Your task to perform on an android device: find snoozed emails in the gmail app Image 0: 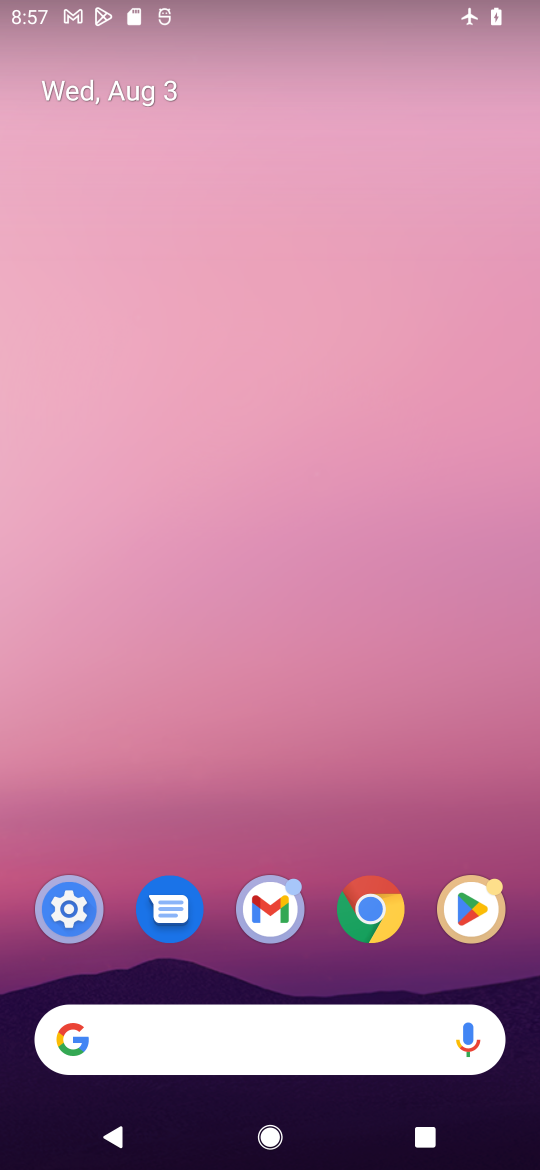
Step 0: drag from (408, 801) to (410, 251)
Your task to perform on an android device: find snoozed emails in the gmail app Image 1: 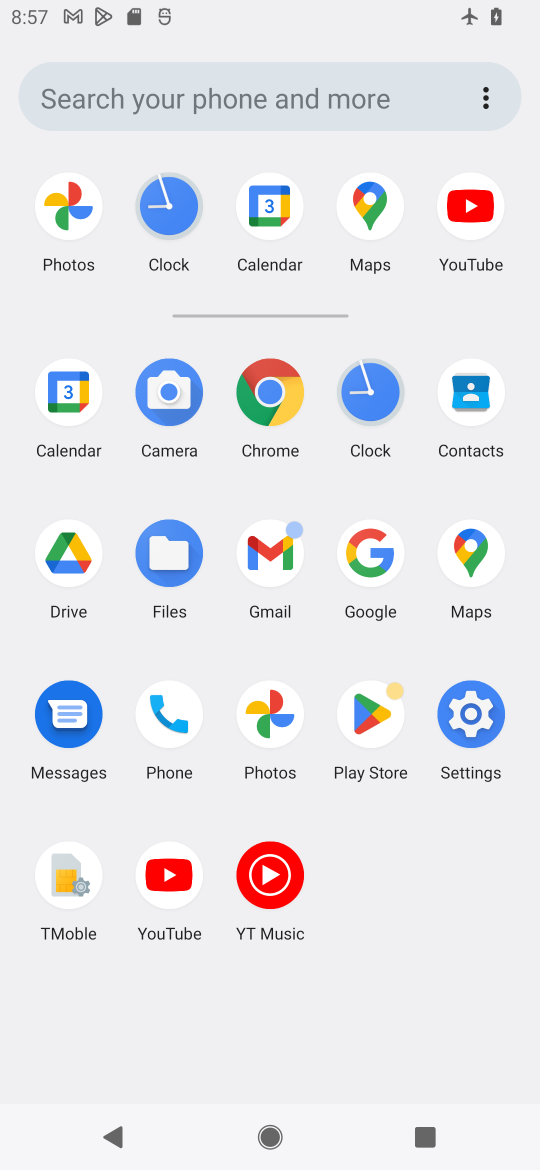
Step 1: click (269, 560)
Your task to perform on an android device: find snoozed emails in the gmail app Image 2: 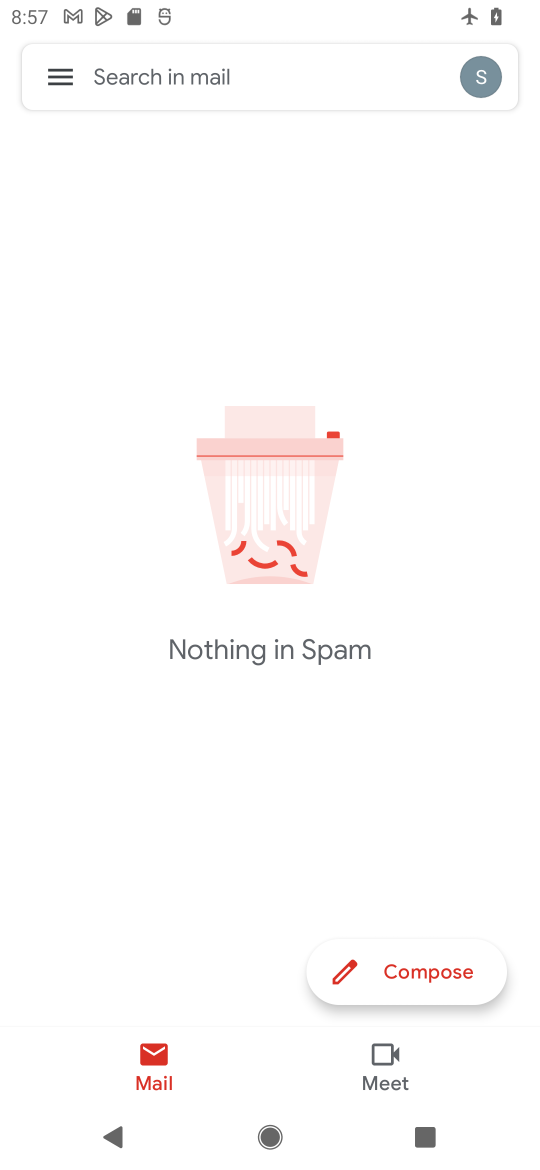
Step 2: click (60, 73)
Your task to perform on an android device: find snoozed emails in the gmail app Image 3: 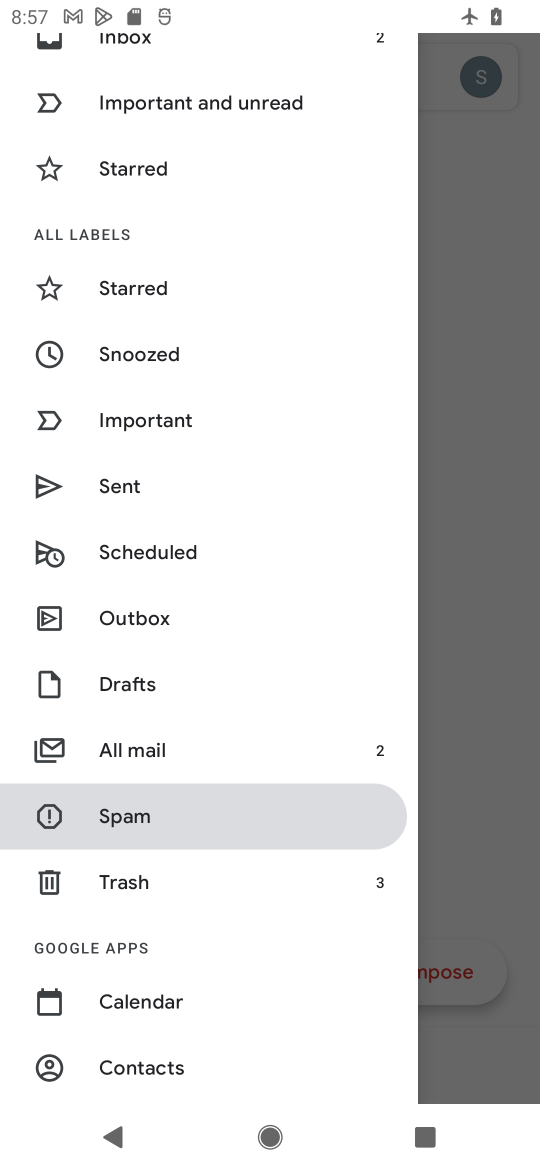
Step 3: drag from (292, 384) to (287, 563)
Your task to perform on an android device: find snoozed emails in the gmail app Image 4: 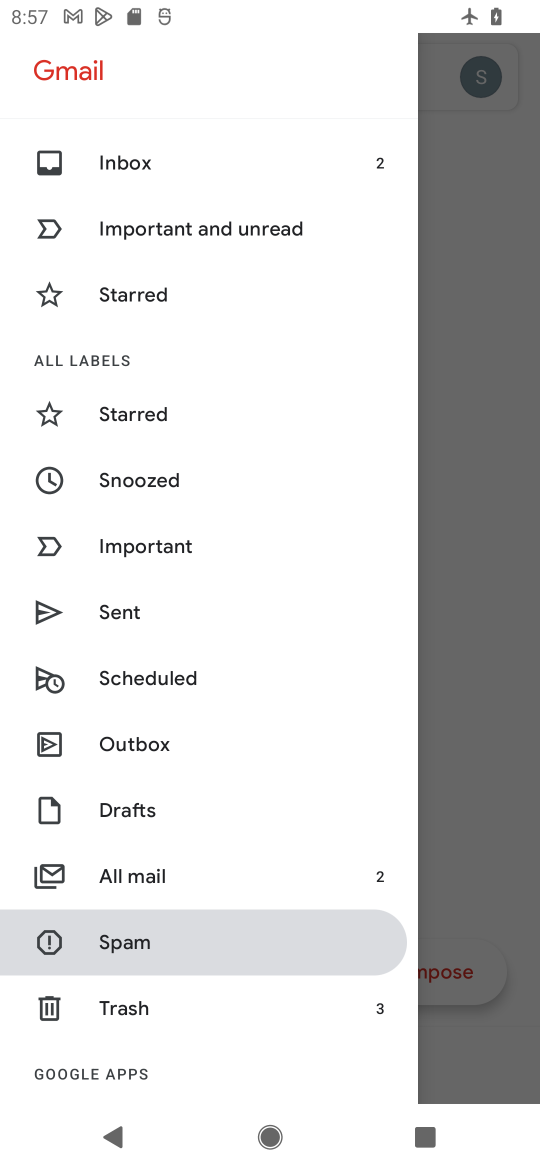
Step 4: drag from (294, 389) to (294, 620)
Your task to perform on an android device: find snoozed emails in the gmail app Image 5: 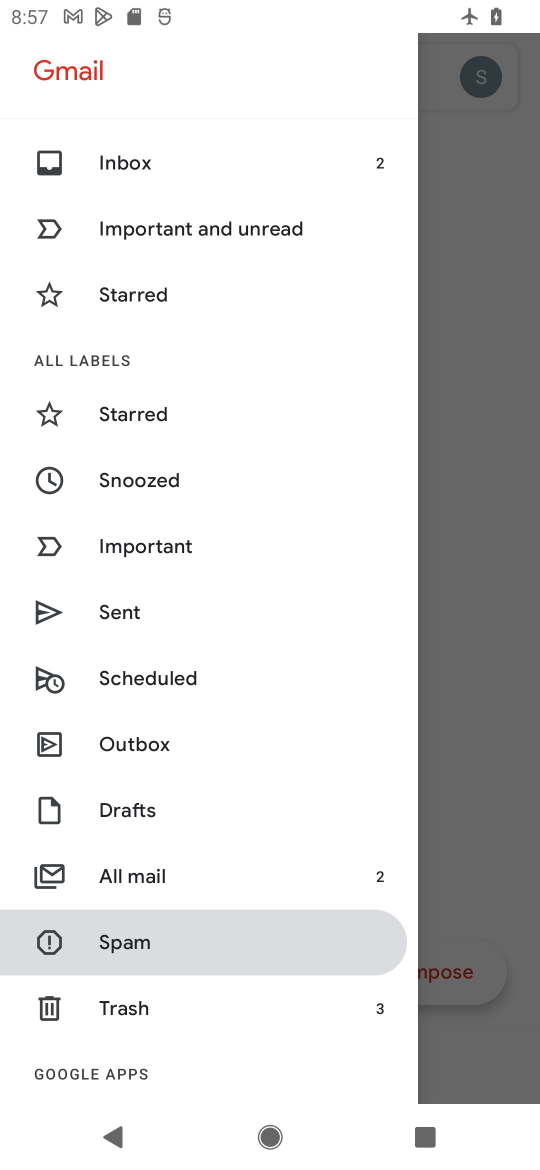
Step 5: click (195, 473)
Your task to perform on an android device: find snoozed emails in the gmail app Image 6: 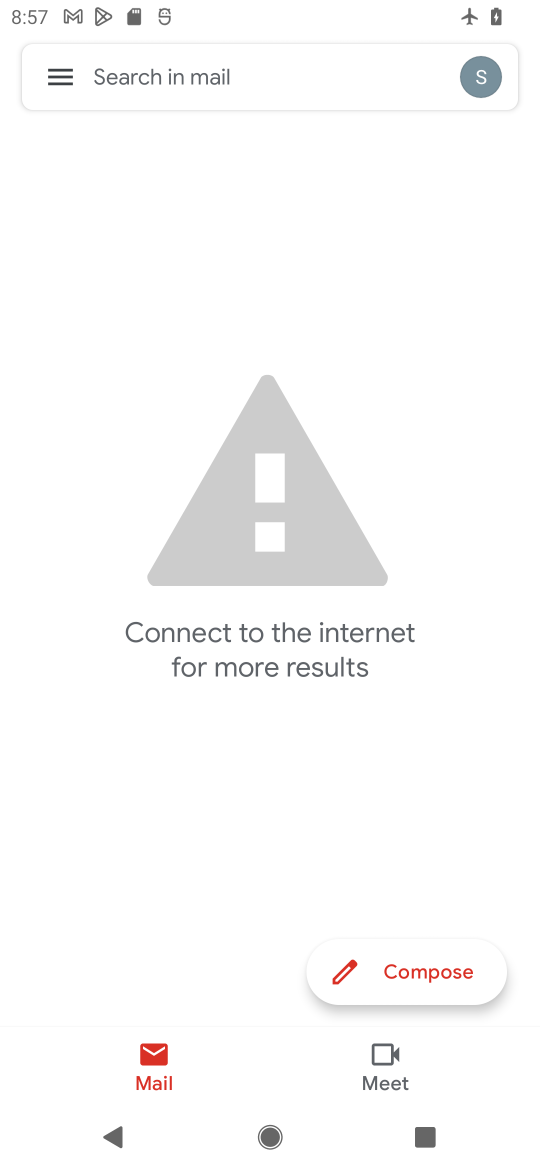
Step 6: task complete